Your task to perform on an android device: Open wifi settings Image 0: 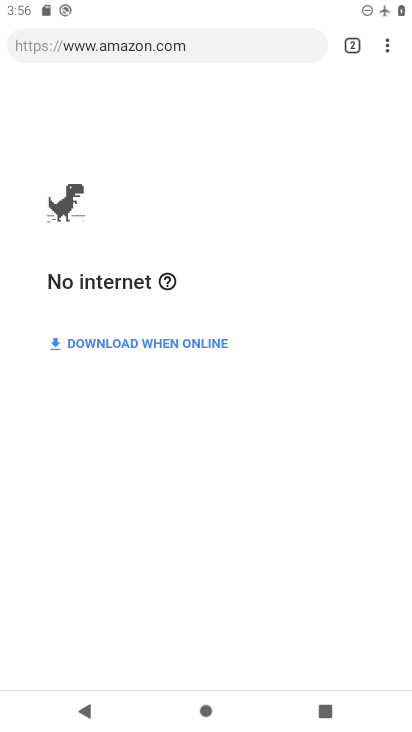
Step 0: press home button
Your task to perform on an android device: Open wifi settings Image 1: 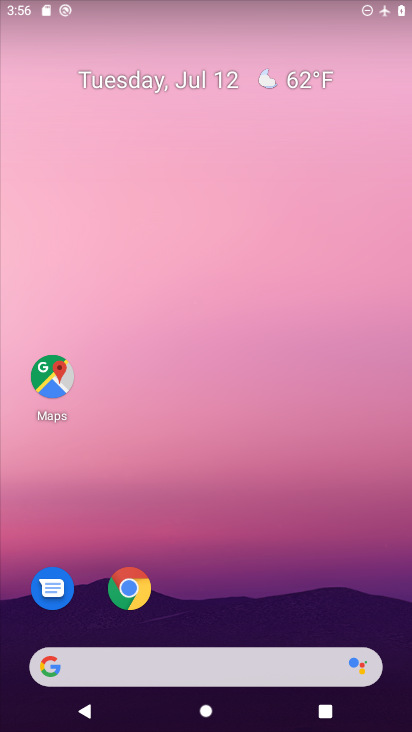
Step 1: drag from (200, 565) to (191, 12)
Your task to perform on an android device: Open wifi settings Image 2: 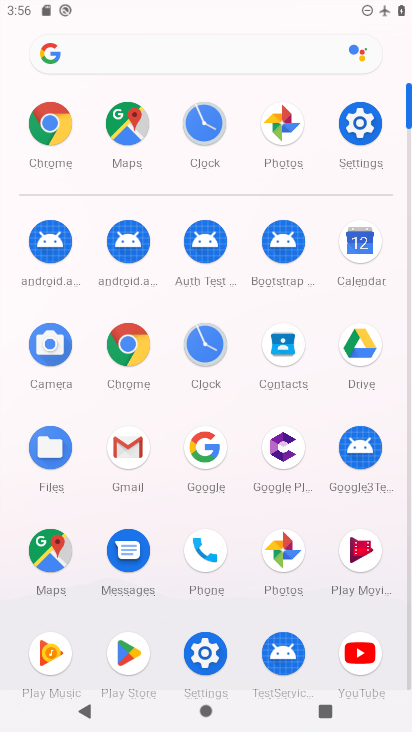
Step 2: click (209, 659)
Your task to perform on an android device: Open wifi settings Image 3: 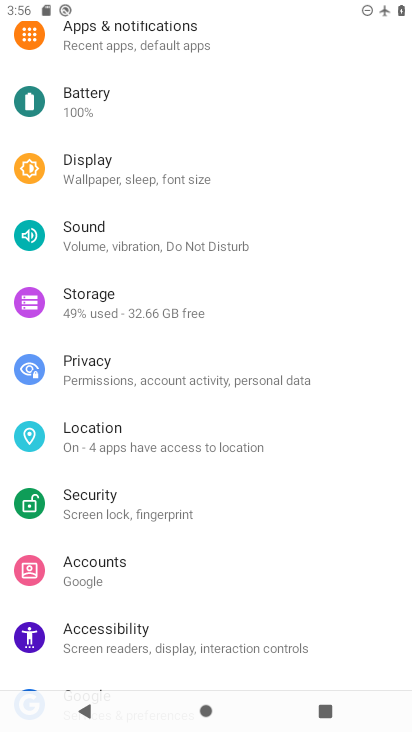
Step 3: drag from (159, 148) to (154, 729)
Your task to perform on an android device: Open wifi settings Image 4: 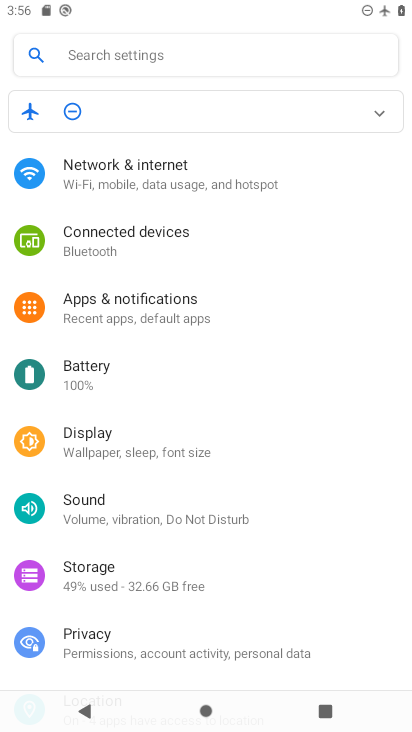
Step 4: click (167, 194)
Your task to perform on an android device: Open wifi settings Image 5: 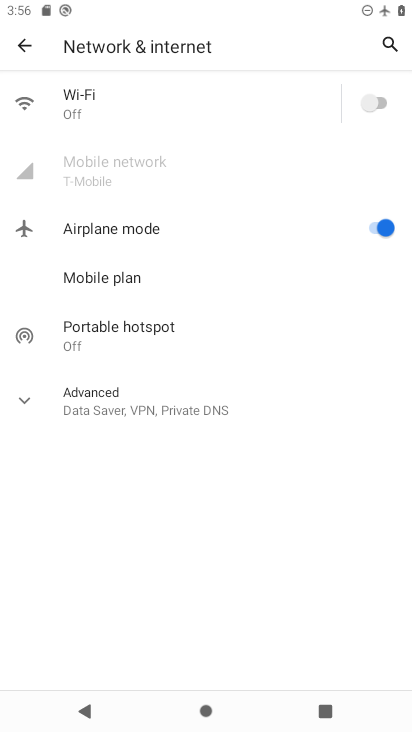
Step 5: click (141, 102)
Your task to perform on an android device: Open wifi settings Image 6: 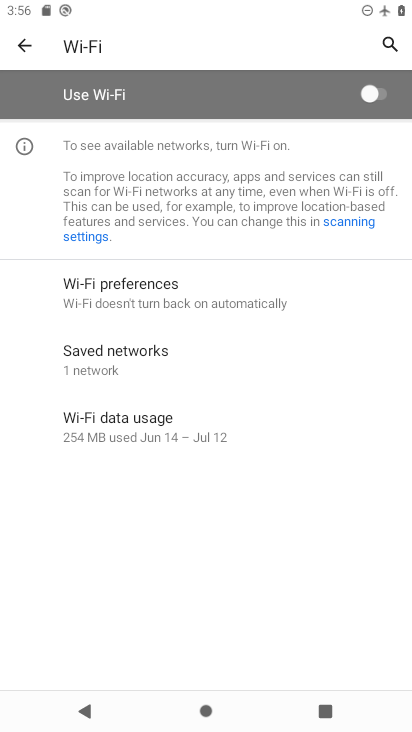
Step 6: task complete